Your task to perform on an android device: Open Maps and search for coffee Image 0: 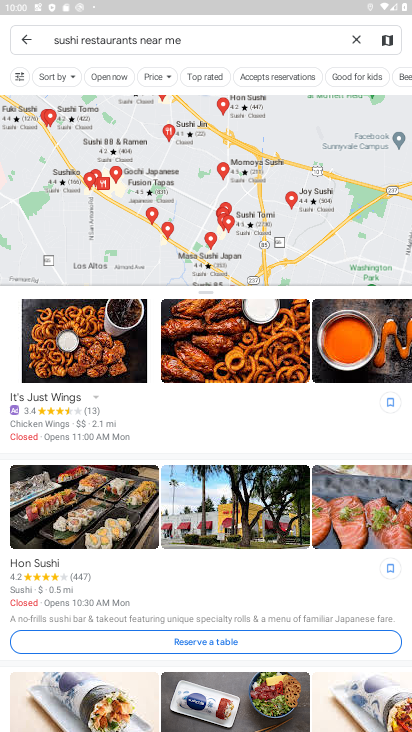
Step 0: click (354, 44)
Your task to perform on an android device: Open Maps and search for coffee Image 1: 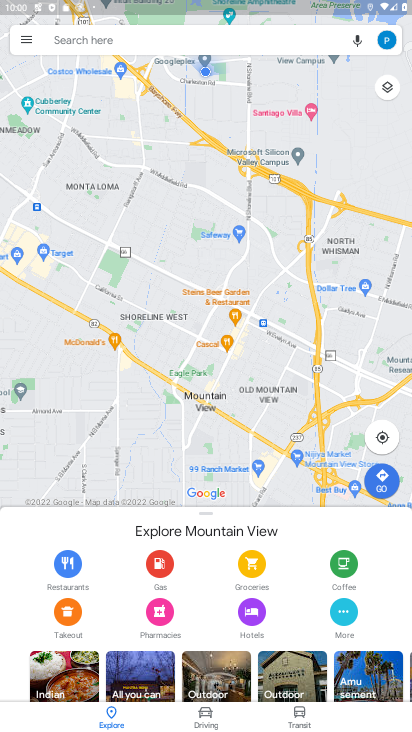
Step 1: click (153, 38)
Your task to perform on an android device: Open Maps and search for coffee Image 2: 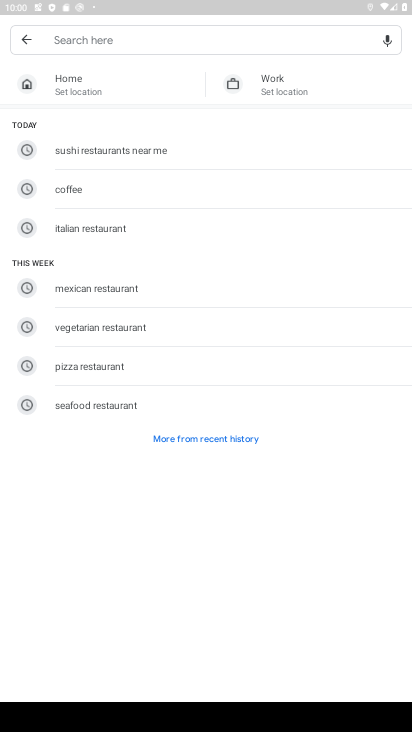
Step 2: click (188, 189)
Your task to perform on an android device: Open Maps and search for coffee Image 3: 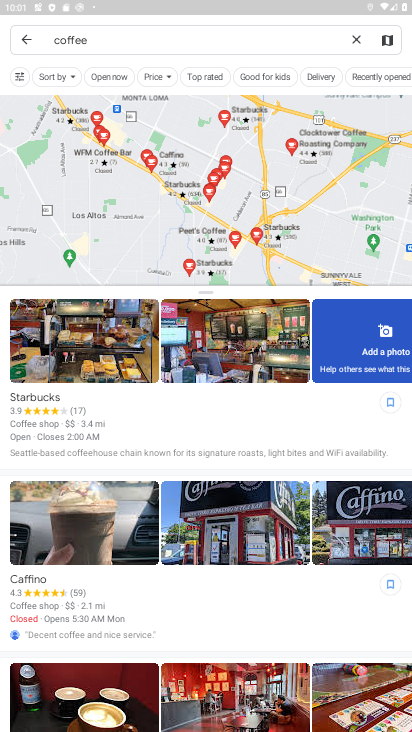
Step 3: task complete